Your task to perform on an android device: turn off translation in the chrome app Image 0: 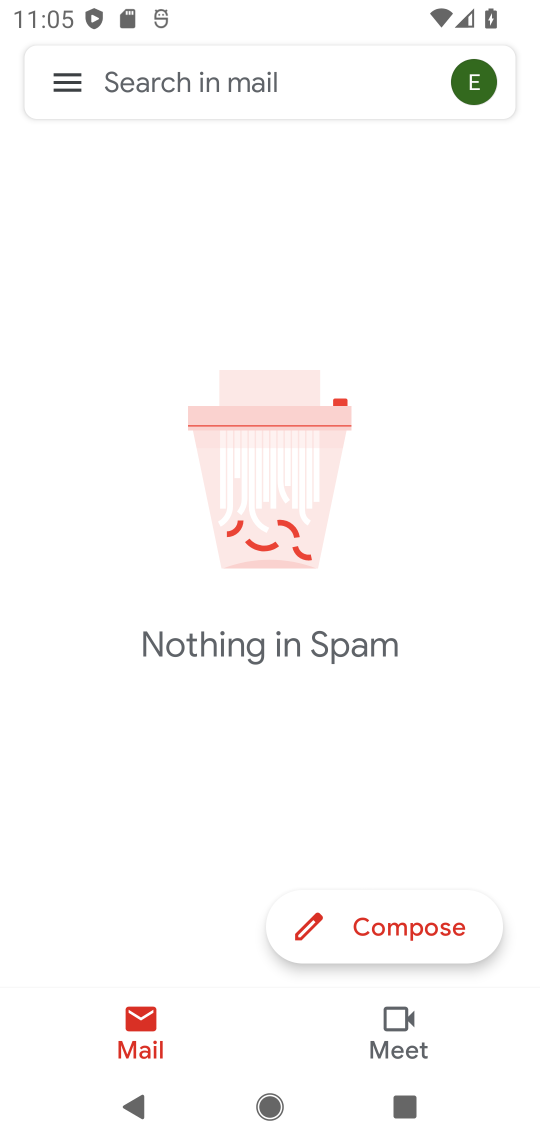
Step 0: press home button
Your task to perform on an android device: turn off translation in the chrome app Image 1: 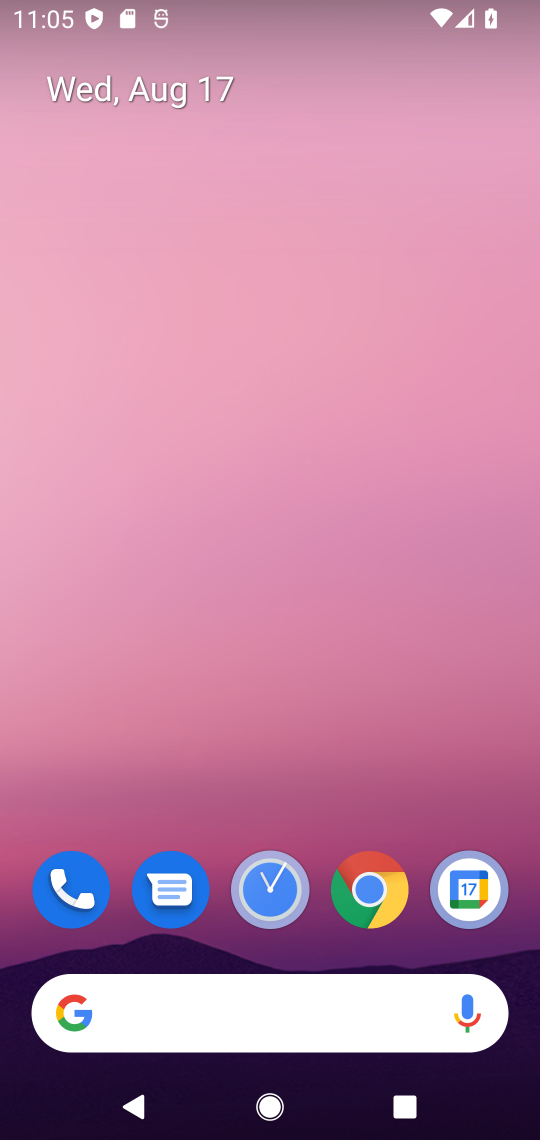
Step 1: click (372, 886)
Your task to perform on an android device: turn off translation in the chrome app Image 2: 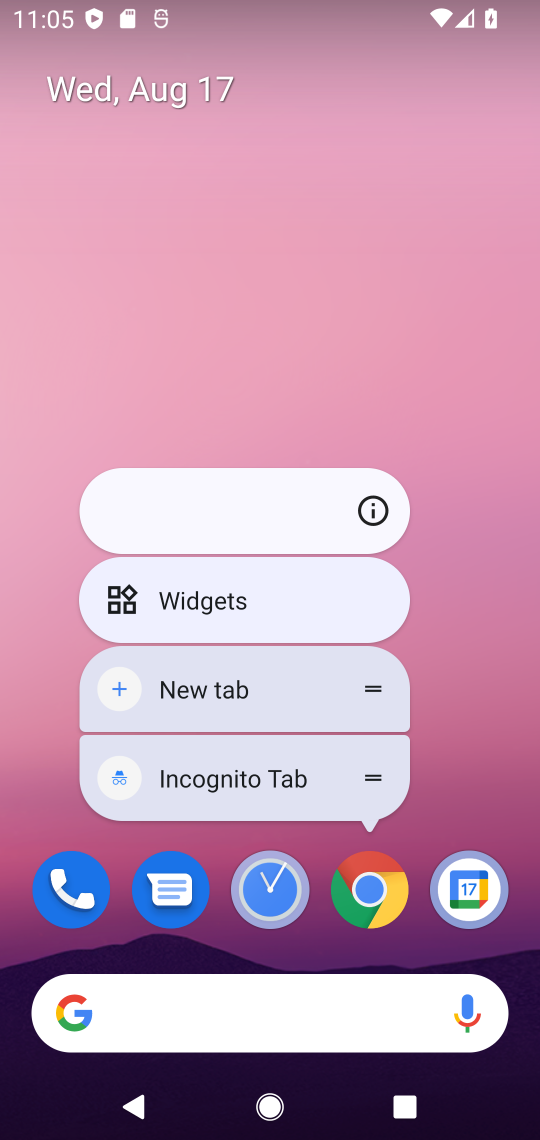
Step 2: click (372, 884)
Your task to perform on an android device: turn off translation in the chrome app Image 3: 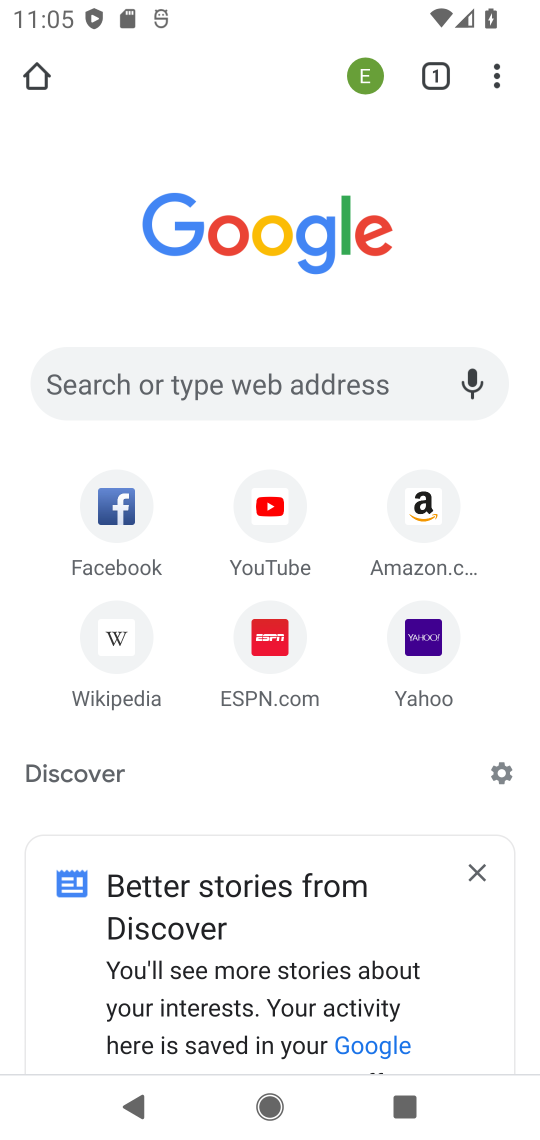
Step 3: click (494, 88)
Your task to perform on an android device: turn off translation in the chrome app Image 4: 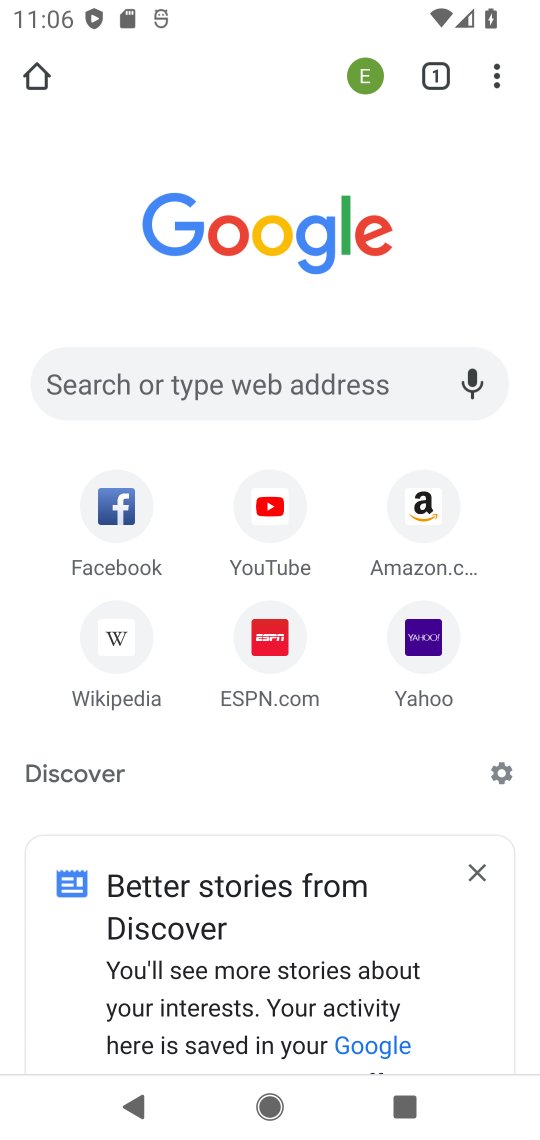
Step 4: click (494, 90)
Your task to perform on an android device: turn off translation in the chrome app Image 5: 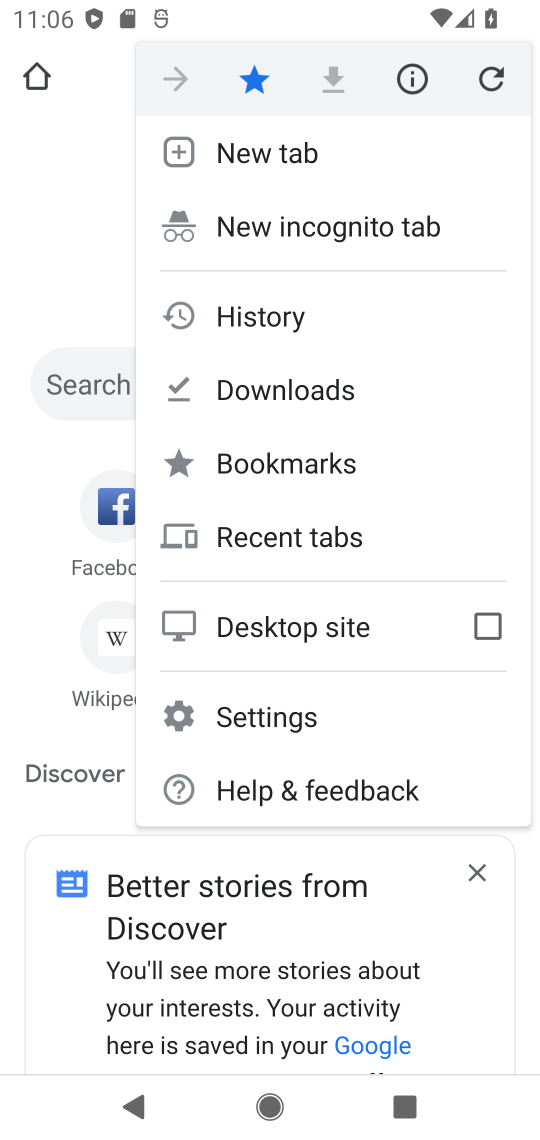
Step 5: click (287, 715)
Your task to perform on an android device: turn off translation in the chrome app Image 6: 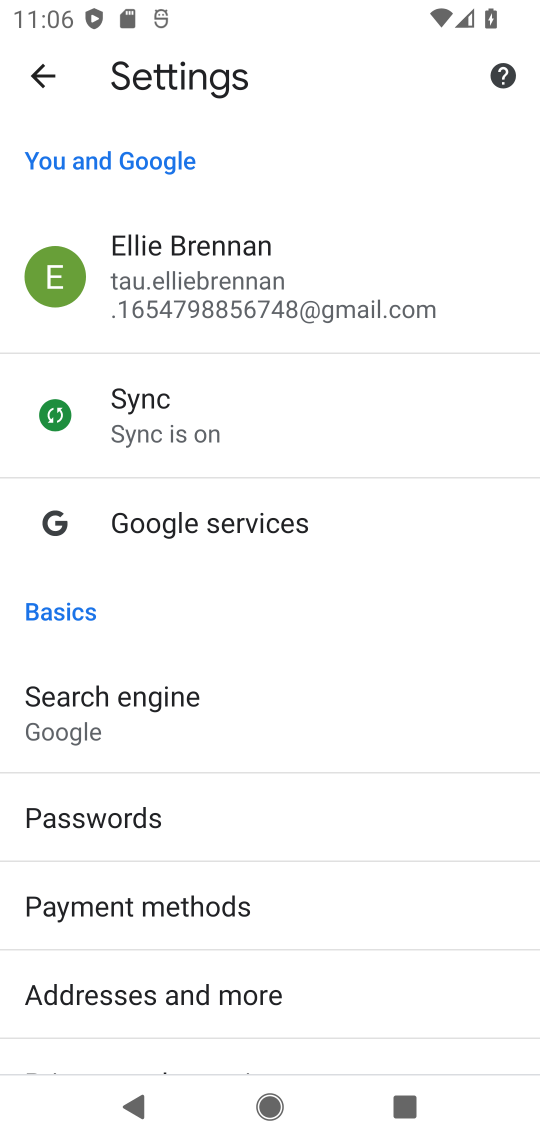
Step 6: drag from (338, 932) to (373, 54)
Your task to perform on an android device: turn off translation in the chrome app Image 7: 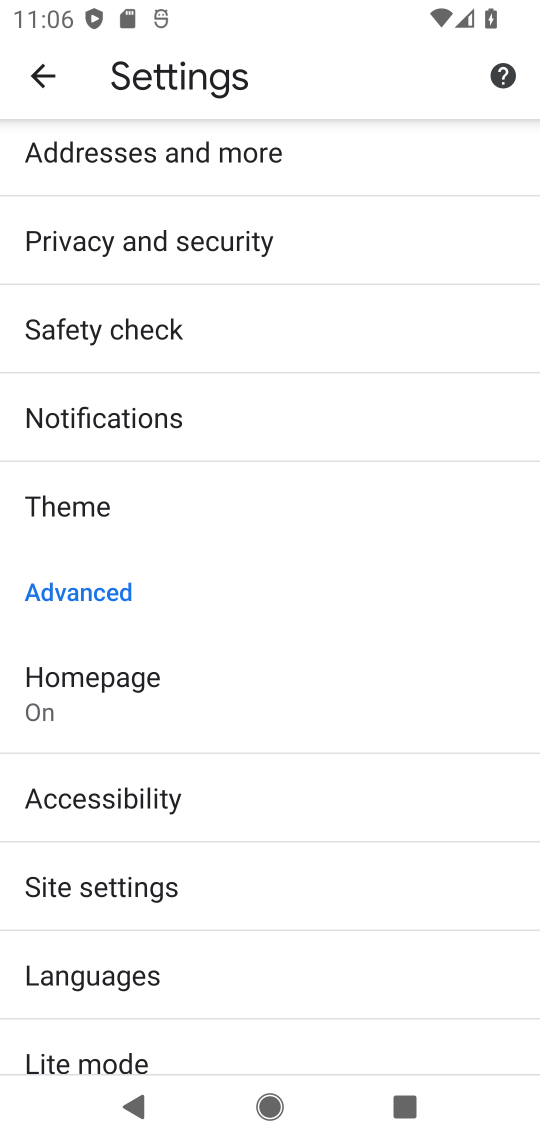
Step 7: click (286, 987)
Your task to perform on an android device: turn off translation in the chrome app Image 8: 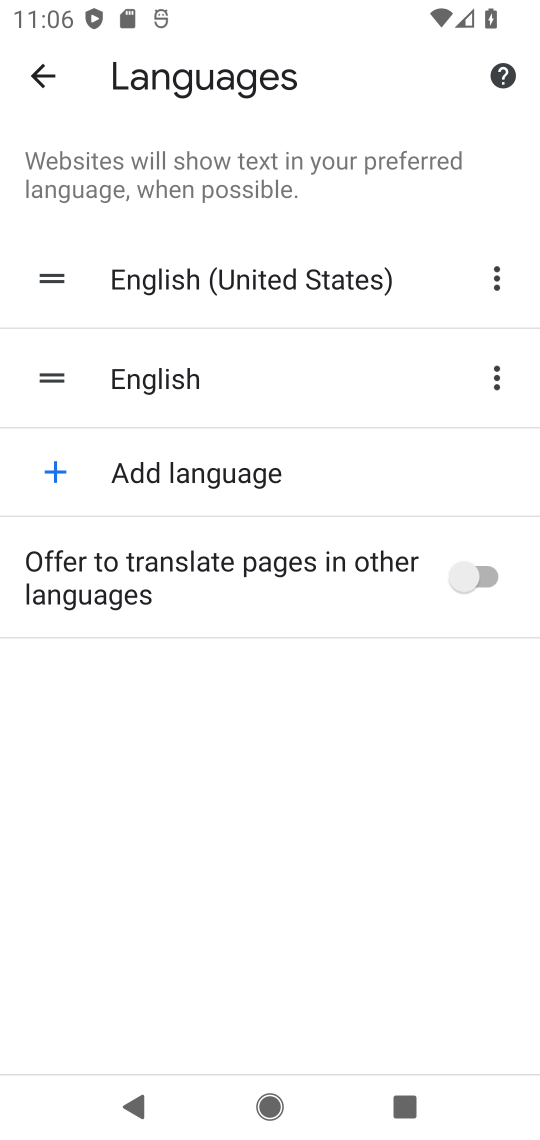
Step 8: task complete